Your task to perform on an android device: stop showing notifications on the lock screen Image 0: 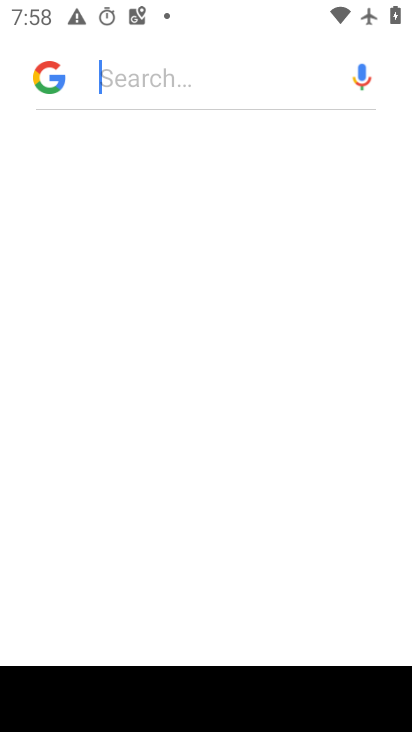
Step 0: press home button
Your task to perform on an android device: stop showing notifications on the lock screen Image 1: 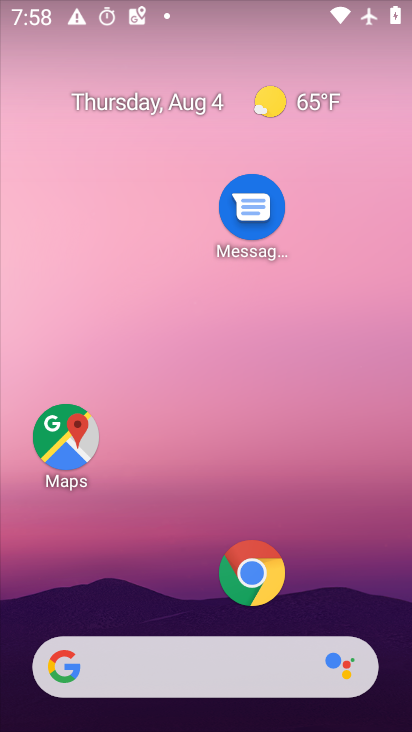
Step 1: drag from (170, 618) to (203, 93)
Your task to perform on an android device: stop showing notifications on the lock screen Image 2: 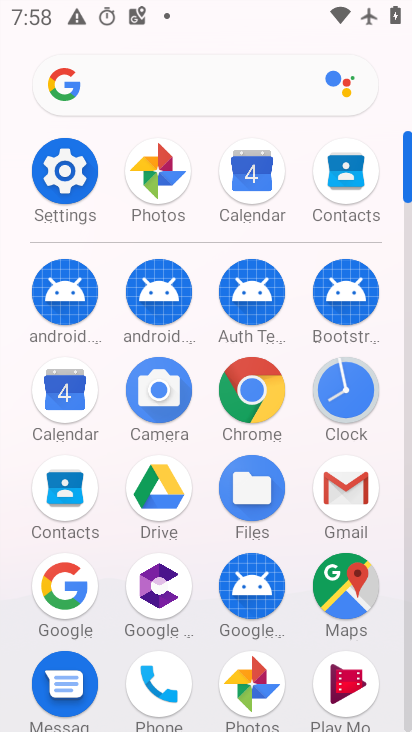
Step 2: click (69, 170)
Your task to perform on an android device: stop showing notifications on the lock screen Image 3: 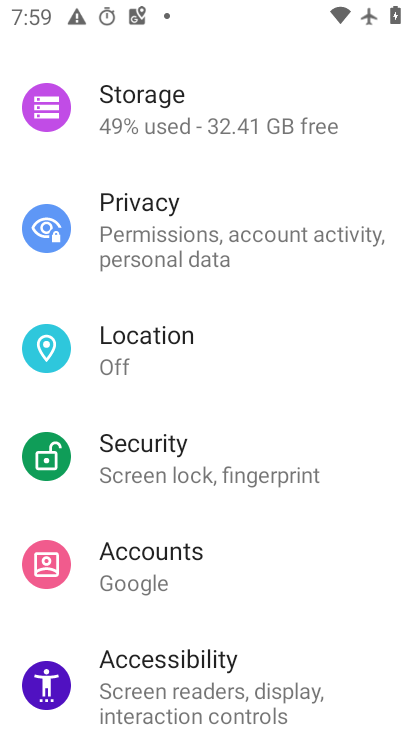
Step 3: drag from (312, 184) to (258, 667)
Your task to perform on an android device: stop showing notifications on the lock screen Image 4: 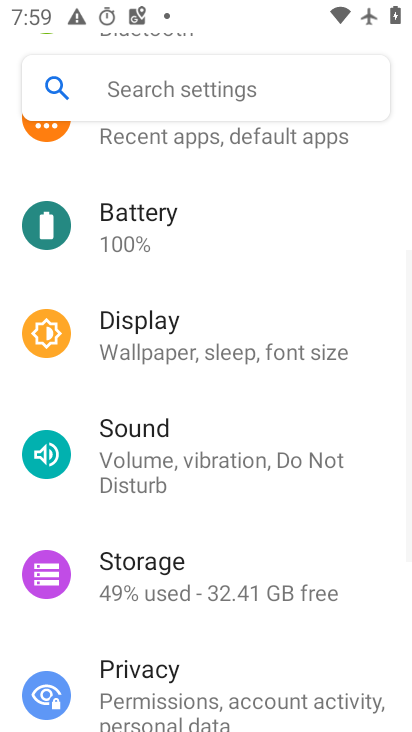
Step 4: drag from (289, 253) to (280, 668)
Your task to perform on an android device: stop showing notifications on the lock screen Image 5: 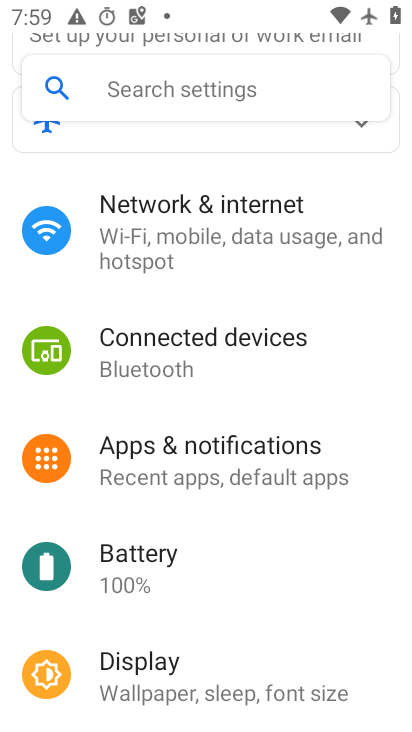
Step 5: click (243, 451)
Your task to perform on an android device: stop showing notifications on the lock screen Image 6: 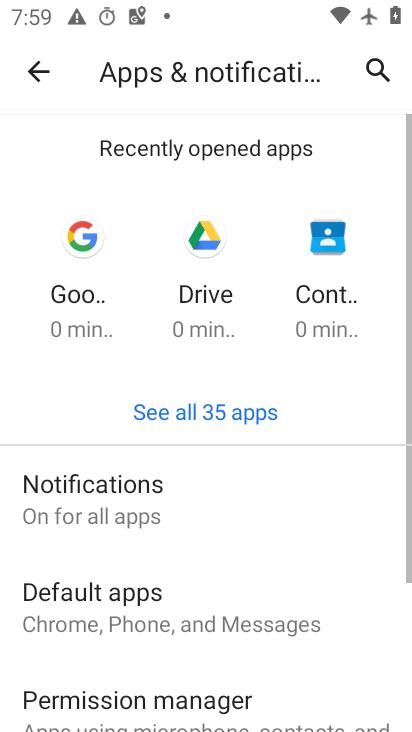
Step 6: click (106, 488)
Your task to perform on an android device: stop showing notifications on the lock screen Image 7: 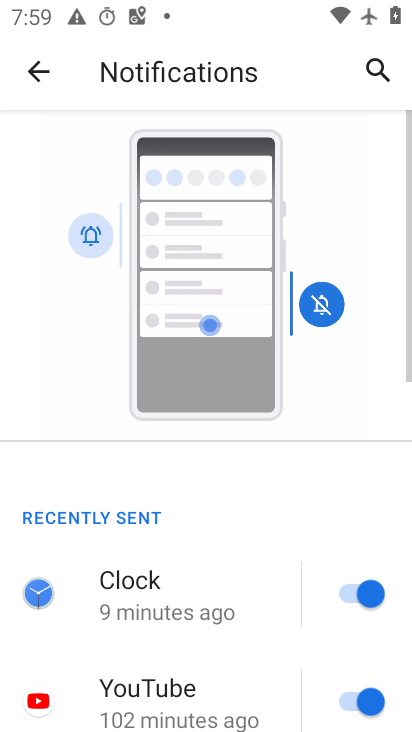
Step 7: drag from (217, 522) to (217, 44)
Your task to perform on an android device: stop showing notifications on the lock screen Image 8: 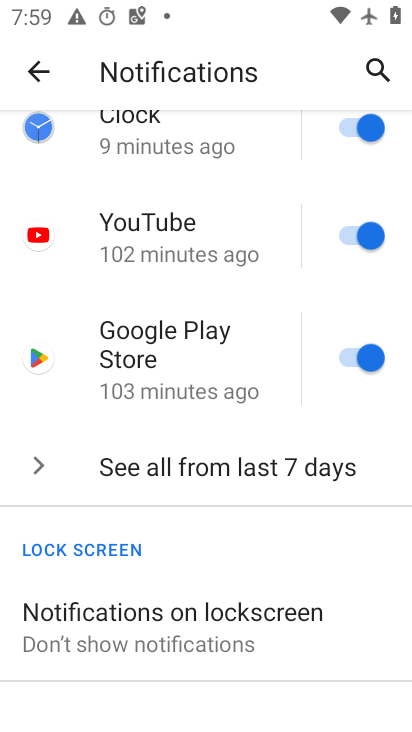
Step 8: drag from (242, 522) to (244, 333)
Your task to perform on an android device: stop showing notifications on the lock screen Image 9: 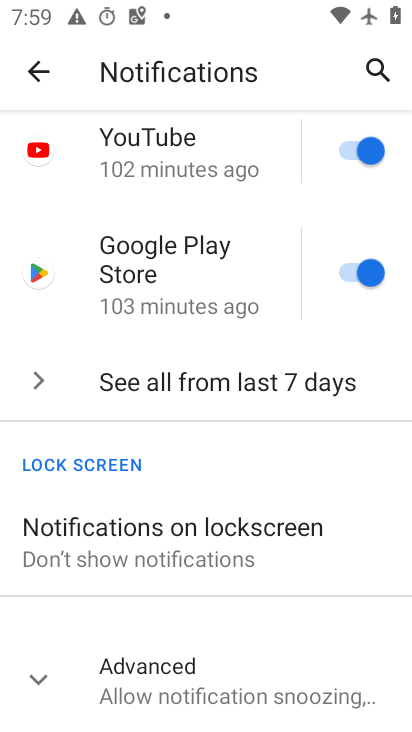
Step 9: click (174, 556)
Your task to perform on an android device: stop showing notifications on the lock screen Image 10: 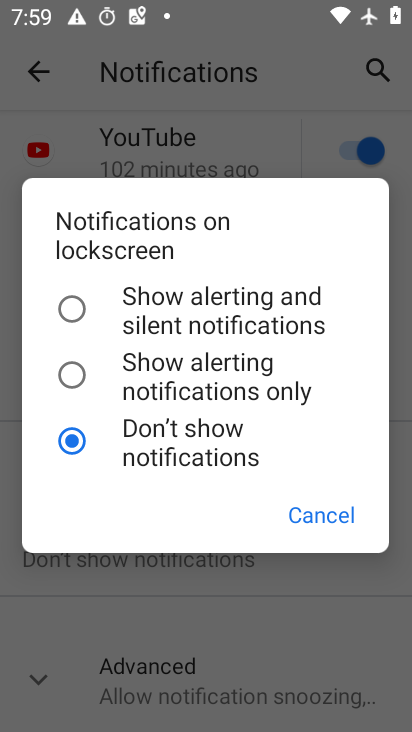
Step 10: task complete